Your task to perform on an android device: Do I have any events today? Image 0: 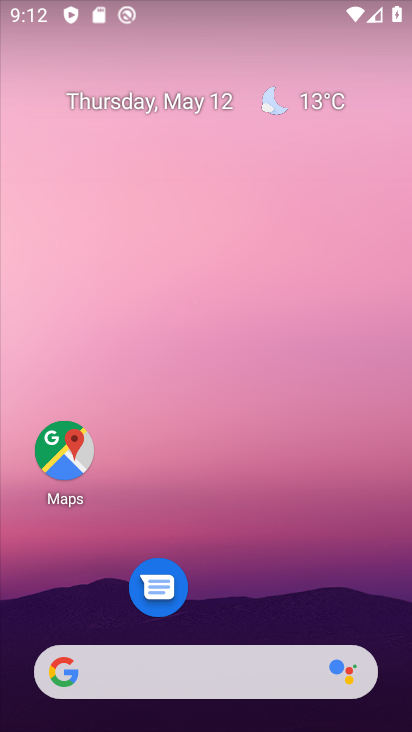
Step 0: drag from (200, 638) to (166, 25)
Your task to perform on an android device: Do I have any events today? Image 1: 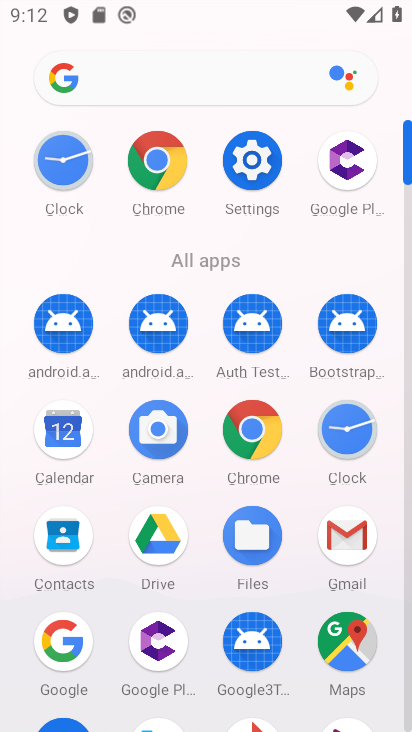
Step 1: click (56, 431)
Your task to perform on an android device: Do I have any events today? Image 2: 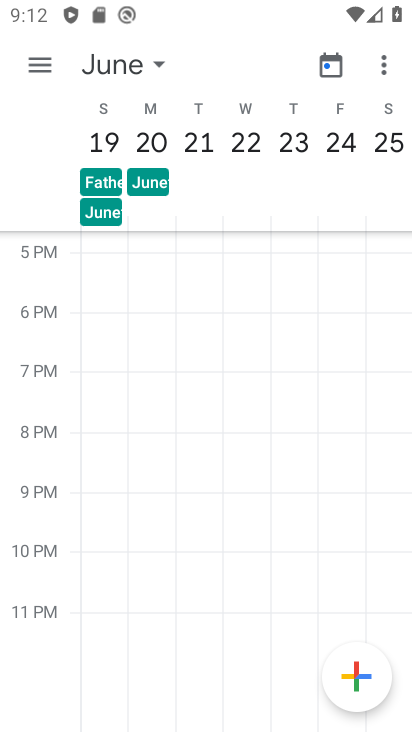
Step 2: click (322, 77)
Your task to perform on an android device: Do I have any events today? Image 3: 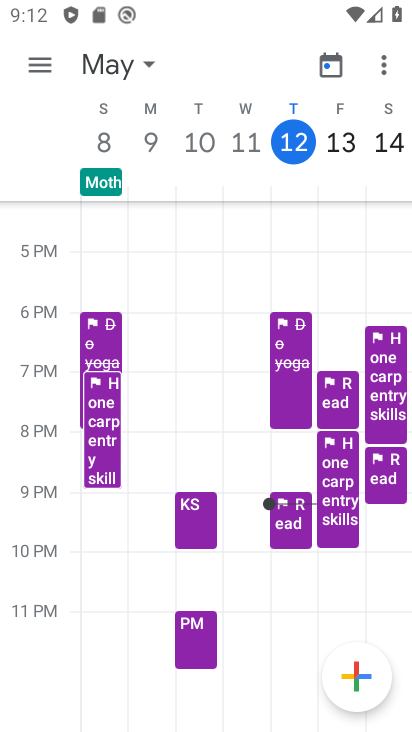
Step 3: click (293, 144)
Your task to perform on an android device: Do I have any events today? Image 4: 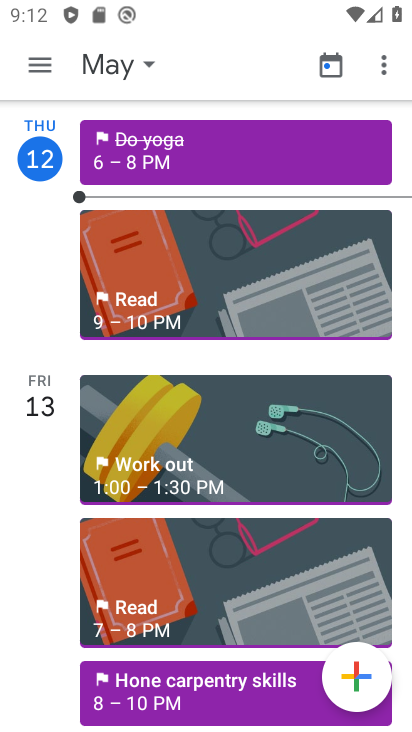
Step 4: task complete